Your task to perform on an android device: Open the web browser Image 0: 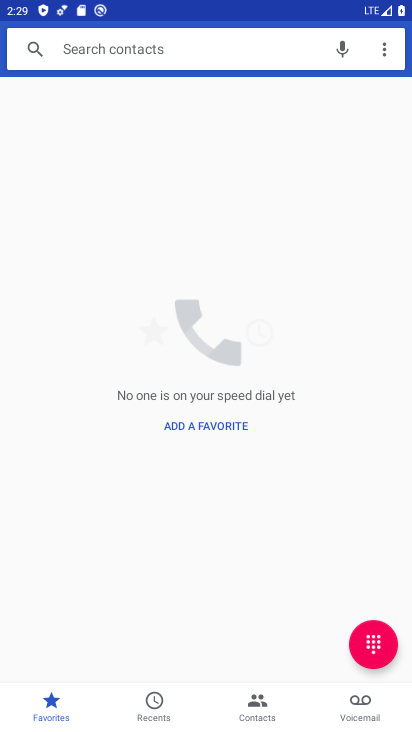
Step 0: press home button
Your task to perform on an android device: Open the web browser Image 1: 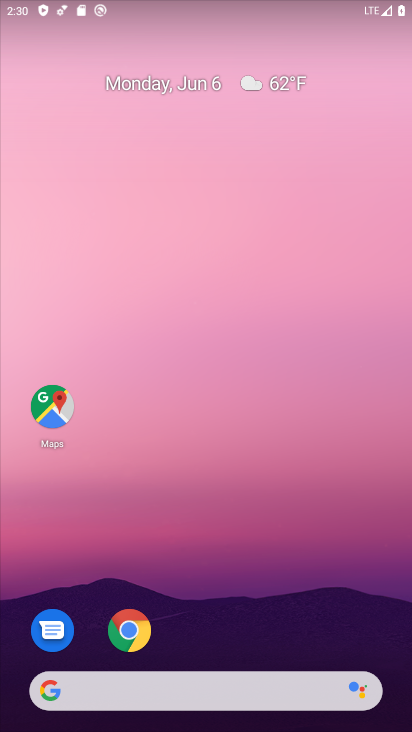
Step 1: drag from (339, 623) to (308, 122)
Your task to perform on an android device: Open the web browser Image 2: 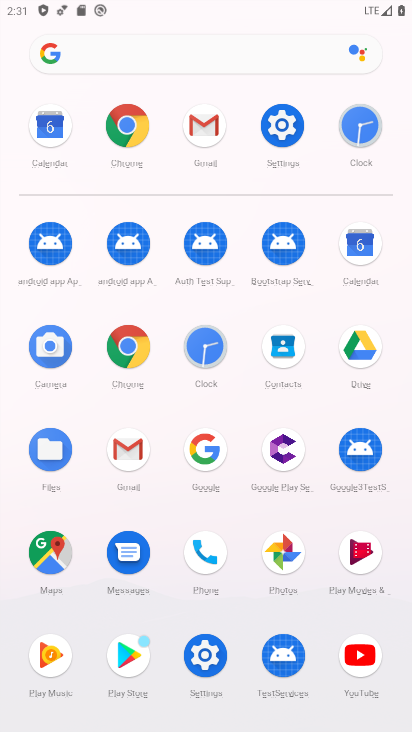
Step 2: click (135, 350)
Your task to perform on an android device: Open the web browser Image 3: 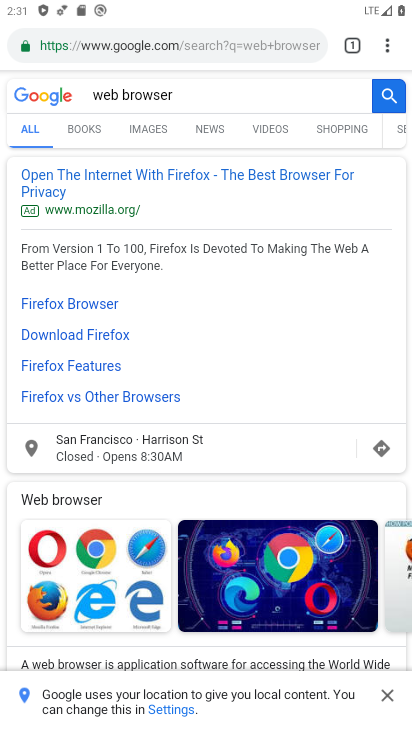
Step 3: task complete